Your task to perform on an android device: Open settings on Google Maps Image 0: 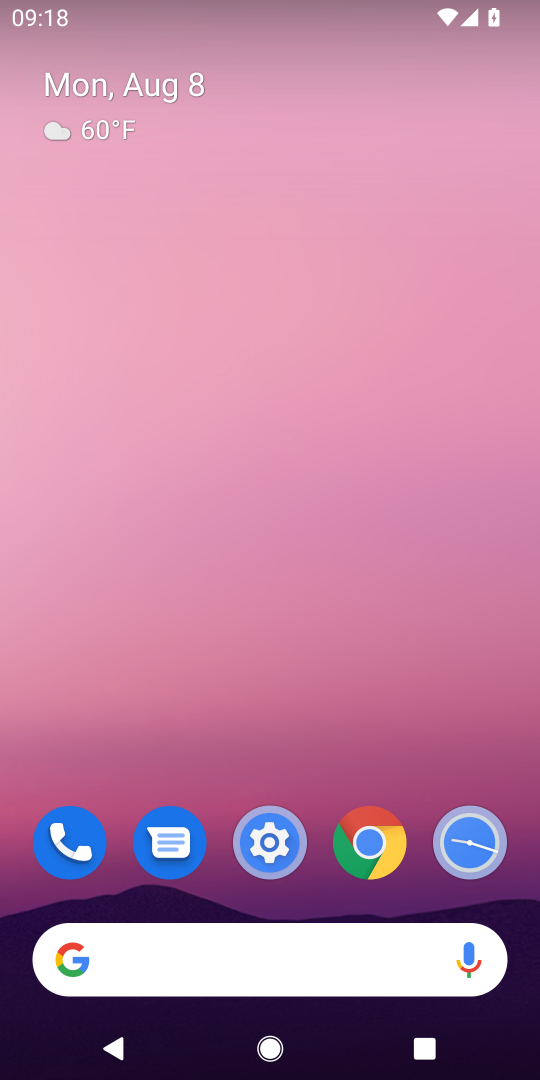
Step 0: drag from (307, 742) to (307, 76)
Your task to perform on an android device: Open settings on Google Maps Image 1: 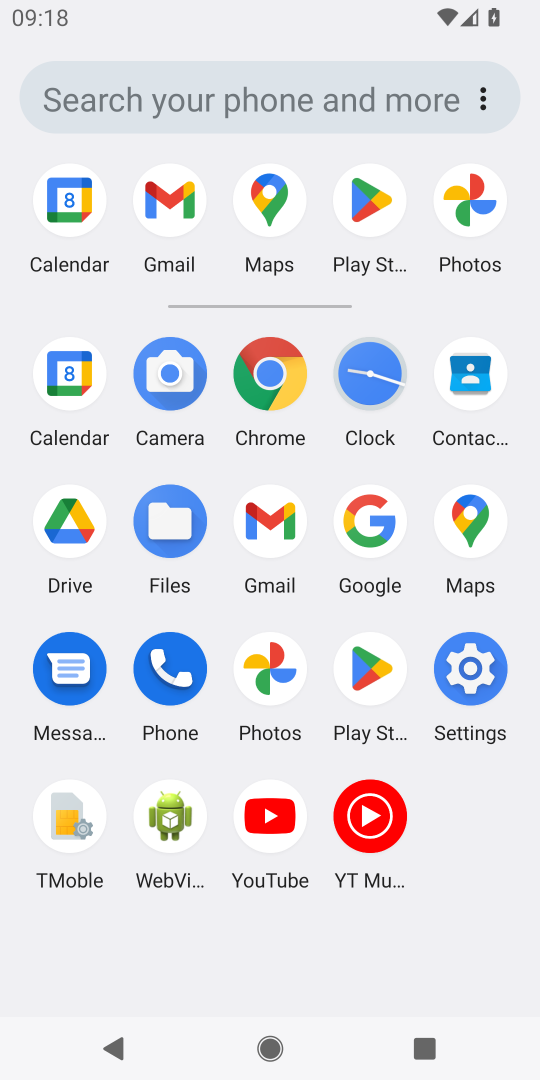
Step 1: click (473, 515)
Your task to perform on an android device: Open settings on Google Maps Image 2: 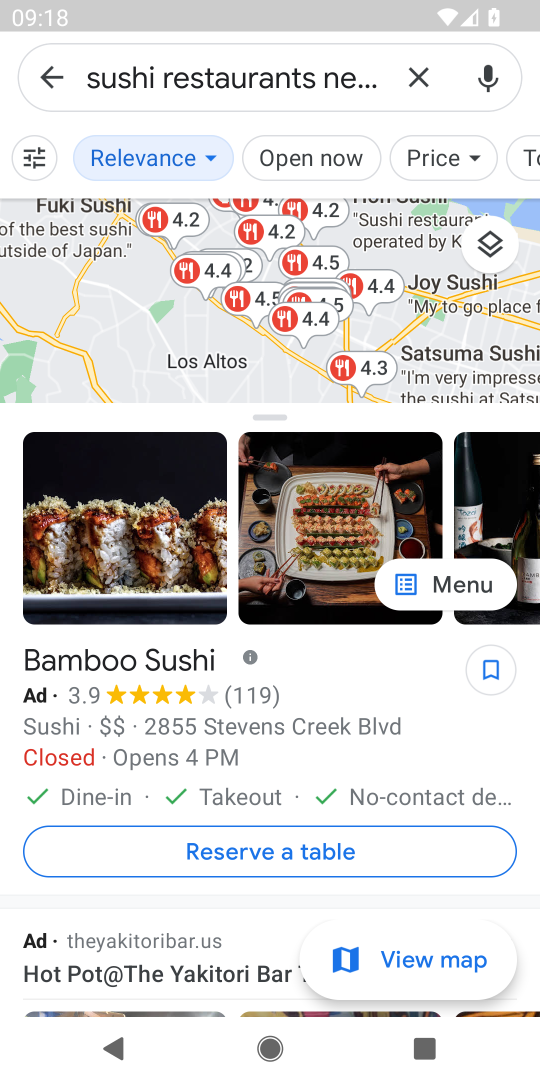
Step 2: click (44, 80)
Your task to perform on an android device: Open settings on Google Maps Image 3: 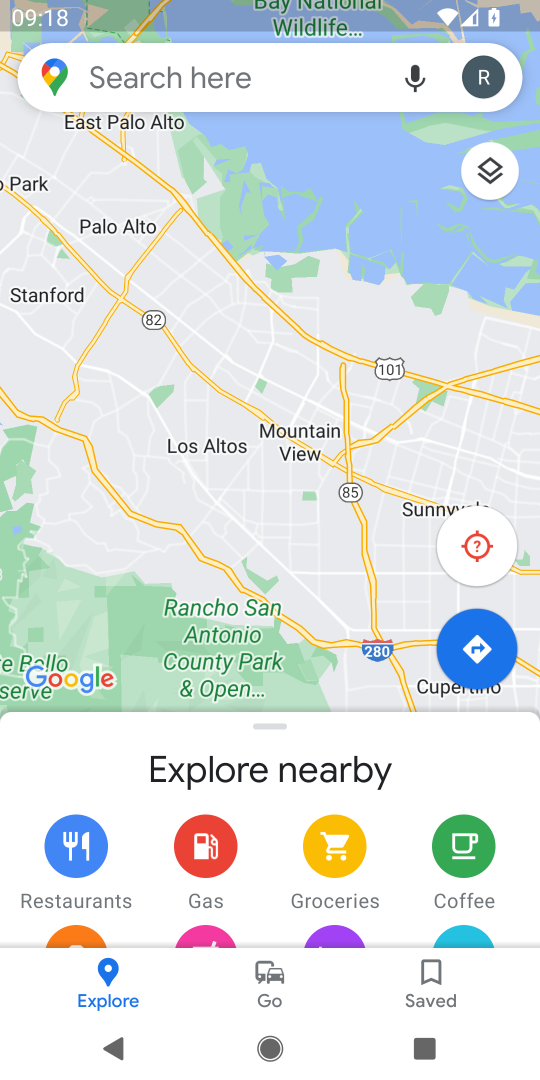
Step 3: click (496, 80)
Your task to perform on an android device: Open settings on Google Maps Image 4: 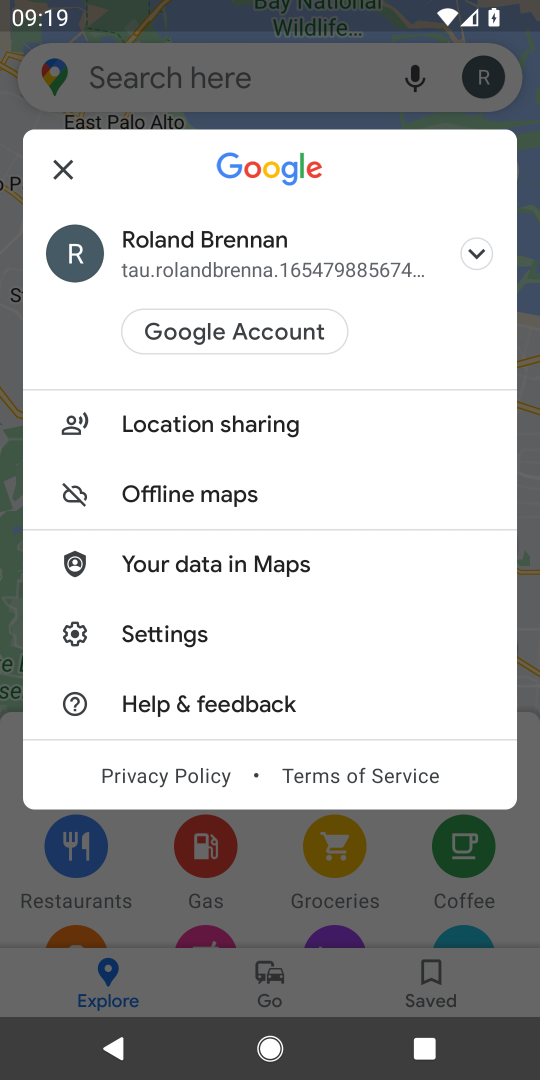
Step 4: click (131, 644)
Your task to perform on an android device: Open settings on Google Maps Image 5: 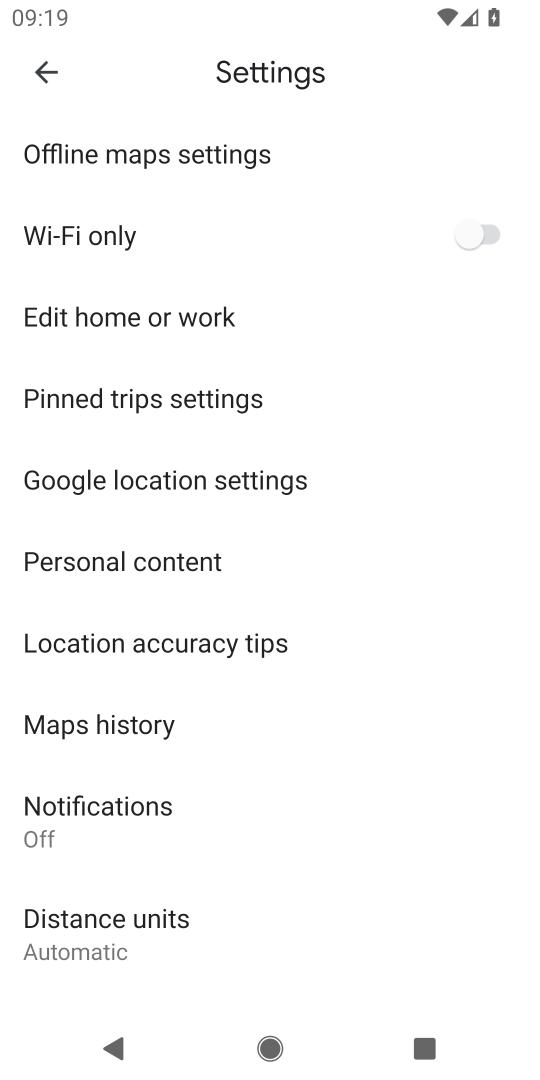
Step 5: task complete